Your task to perform on an android device: uninstall "TextNow: Call + Text Unlimited" Image 0: 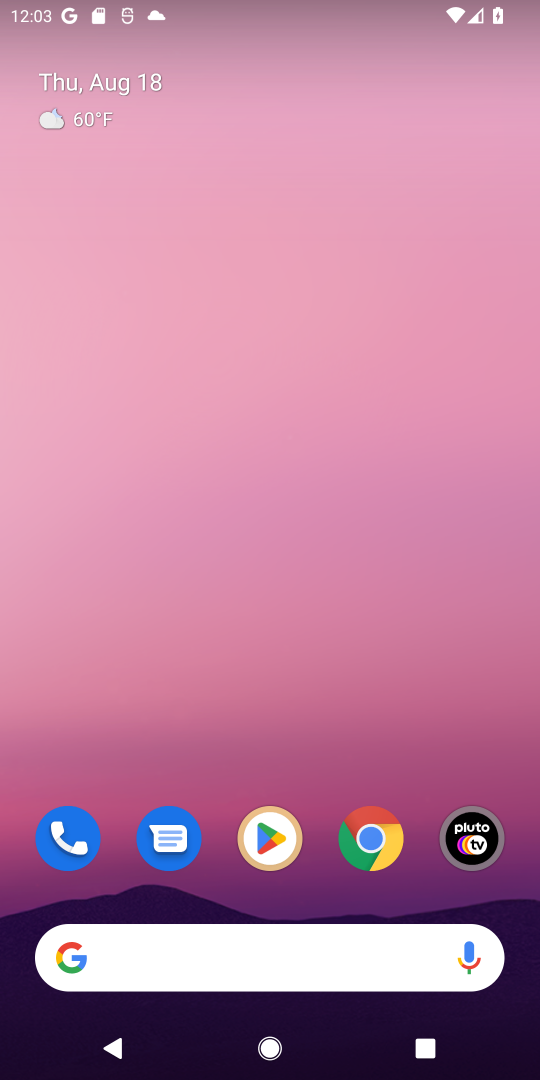
Step 0: click (260, 822)
Your task to perform on an android device: uninstall "TextNow: Call + Text Unlimited" Image 1: 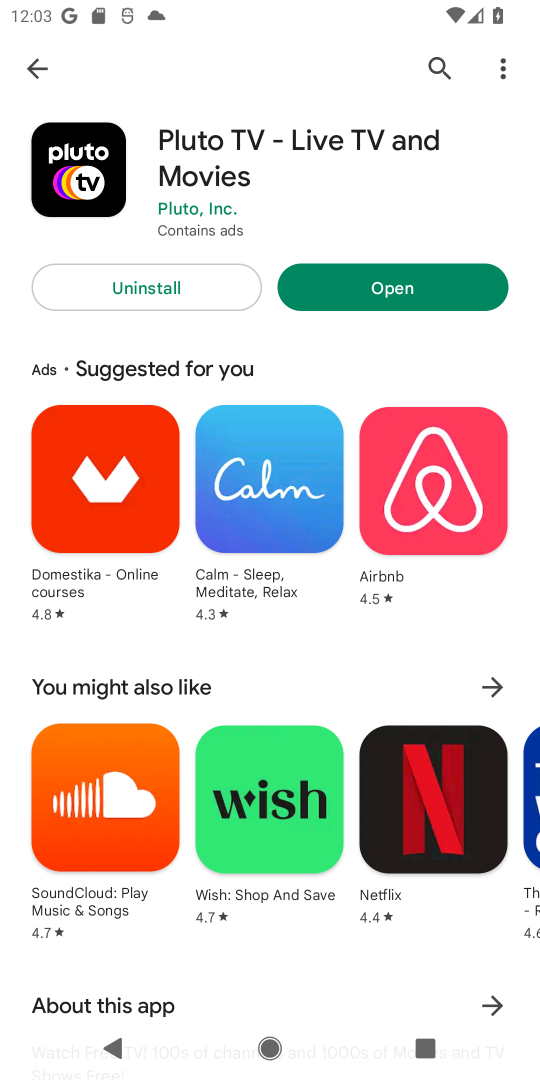
Step 1: click (431, 62)
Your task to perform on an android device: uninstall "TextNow: Call + Text Unlimited" Image 2: 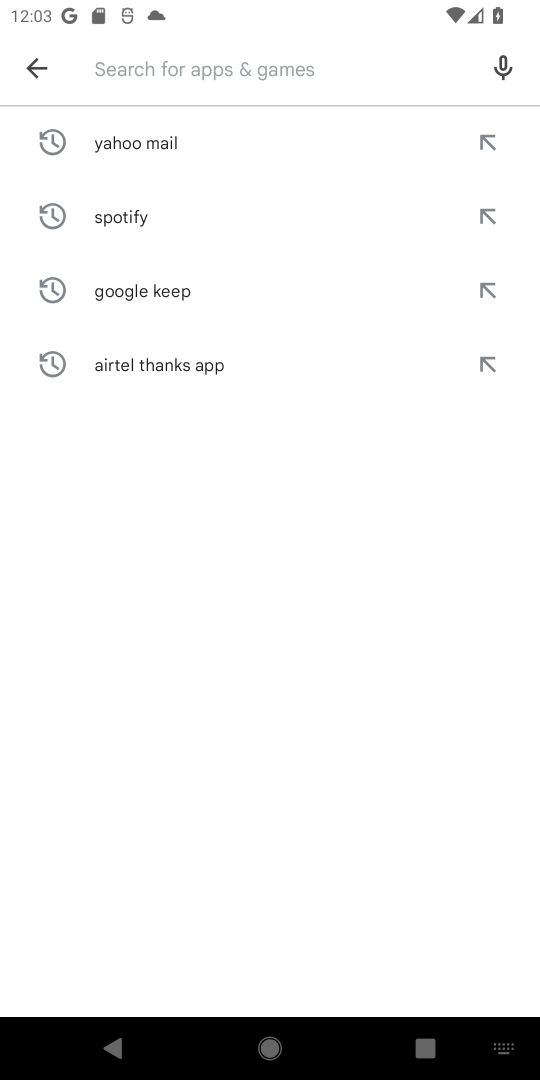
Step 2: type "TextNow: Call + Text Unlimited"
Your task to perform on an android device: uninstall "TextNow: Call + Text Unlimited" Image 3: 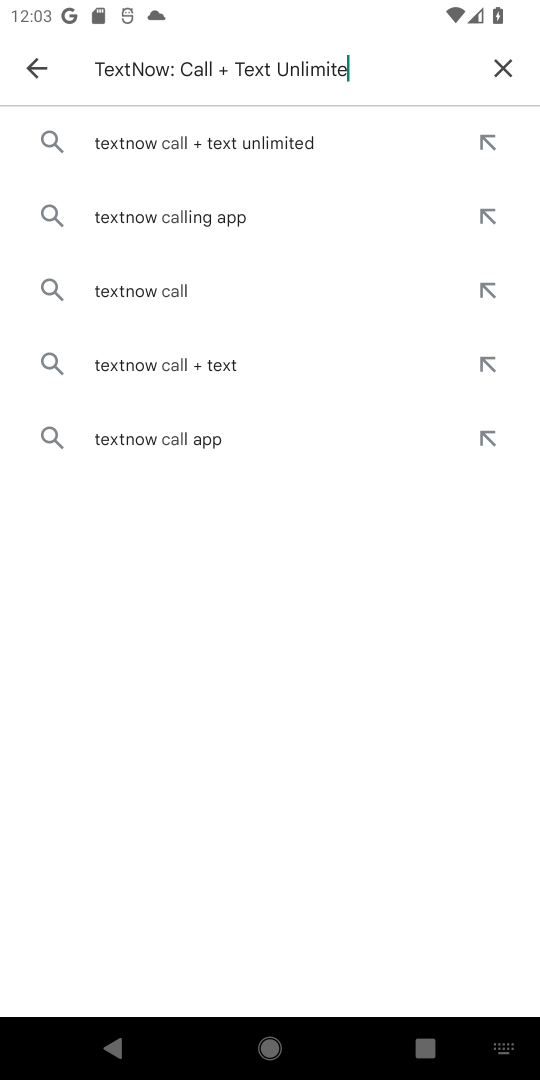
Step 3: type ""
Your task to perform on an android device: uninstall "TextNow: Call + Text Unlimited" Image 4: 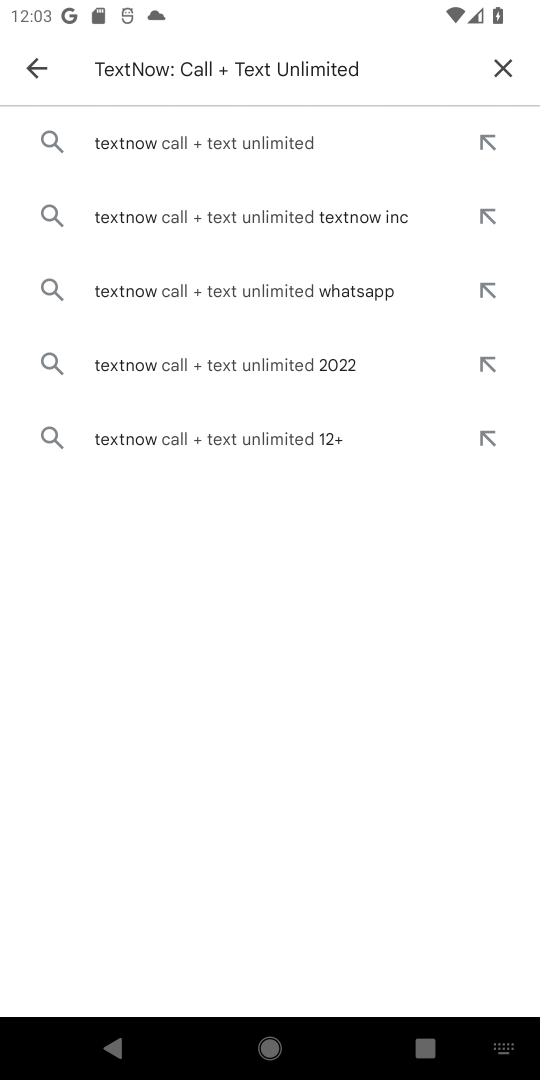
Step 4: click (185, 145)
Your task to perform on an android device: uninstall "TextNow: Call + Text Unlimited" Image 5: 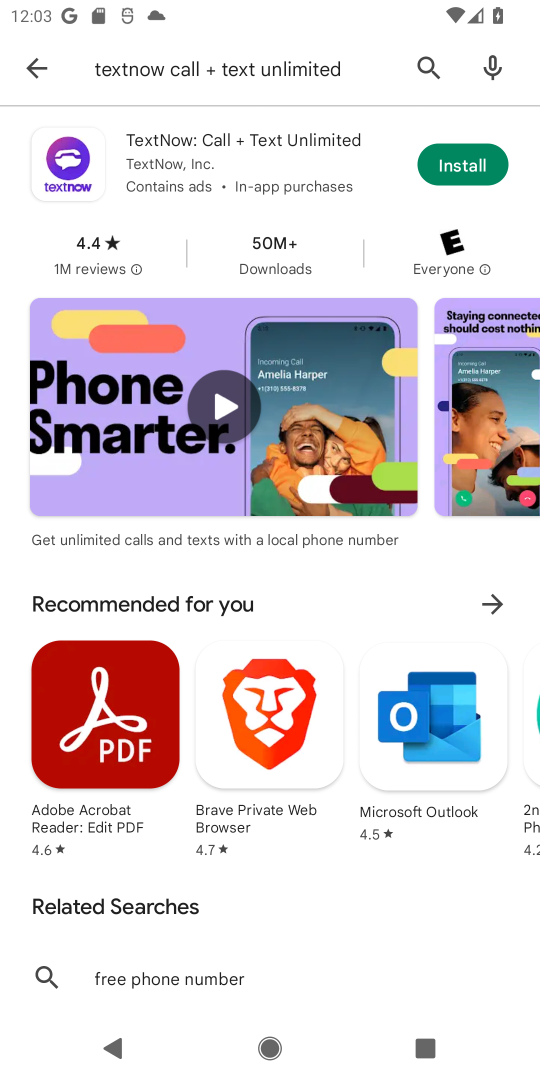
Step 5: task complete